Your task to perform on an android device: Open settings on Google Maps Image 0: 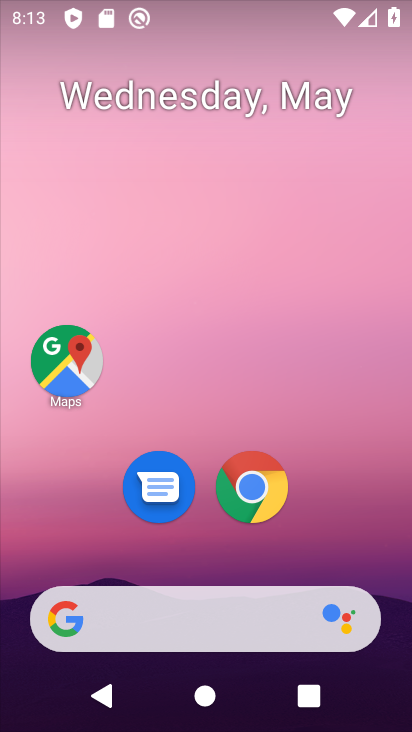
Step 0: click (67, 366)
Your task to perform on an android device: Open settings on Google Maps Image 1: 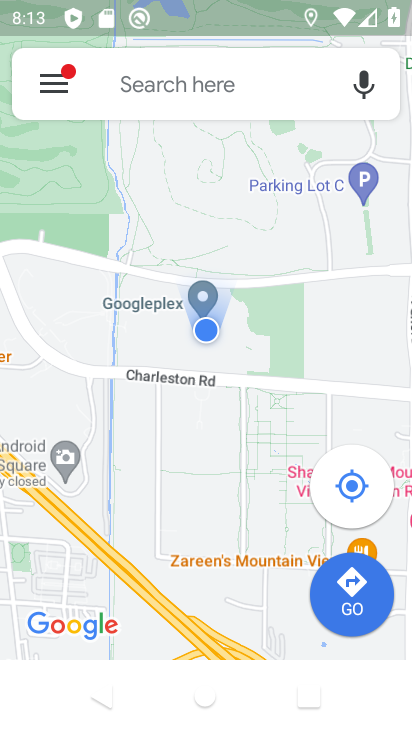
Step 1: click (48, 72)
Your task to perform on an android device: Open settings on Google Maps Image 2: 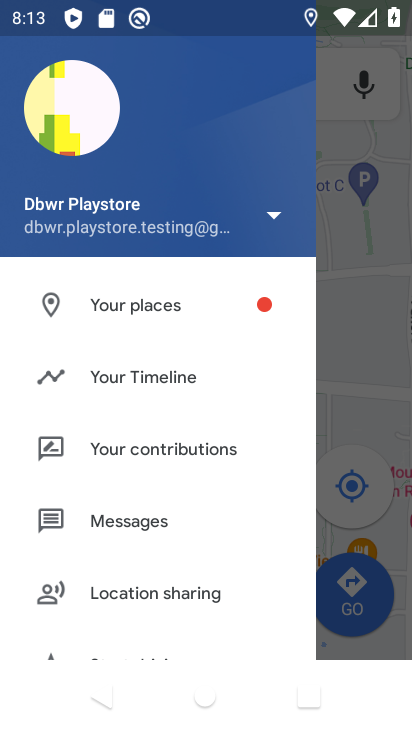
Step 2: drag from (215, 527) to (159, 242)
Your task to perform on an android device: Open settings on Google Maps Image 3: 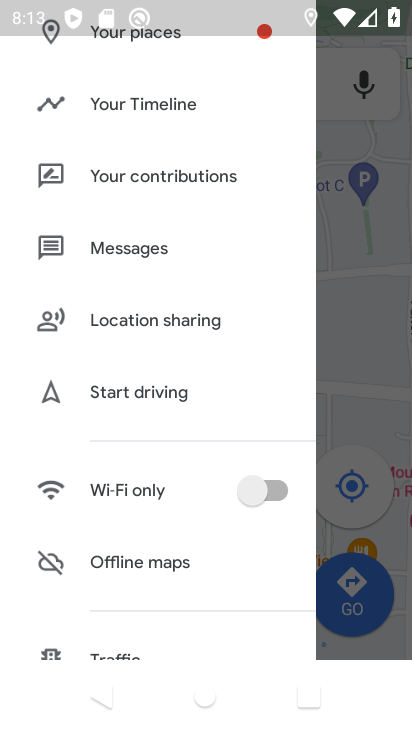
Step 3: drag from (165, 600) to (142, 235)
Your task to perform on an android device: Open settings on Google Maps Image 4: 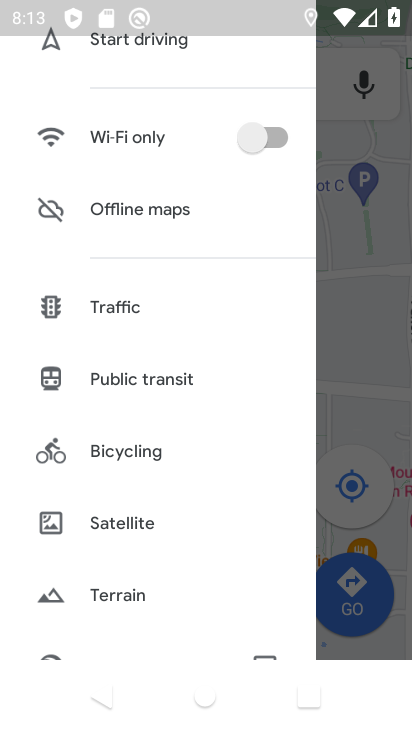
Step 4: drag from (171, 553) to (172, 100)
Your task to perform on an android device: Open settings on Google Maps Image 5: 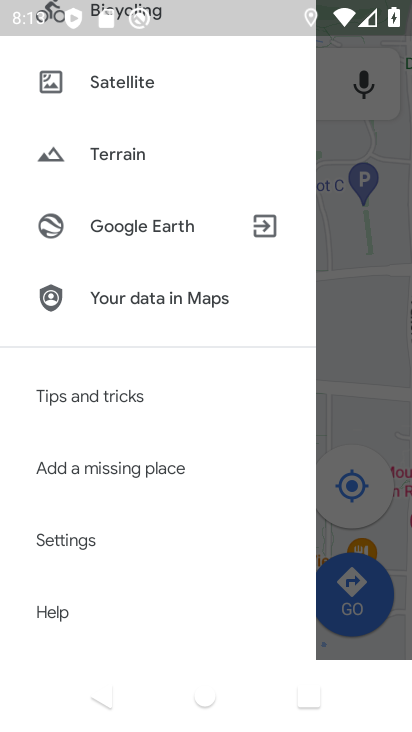
Step 5: click (72, 533)
Your task to perform on an android device: Open settings on Google Maps Image 6: 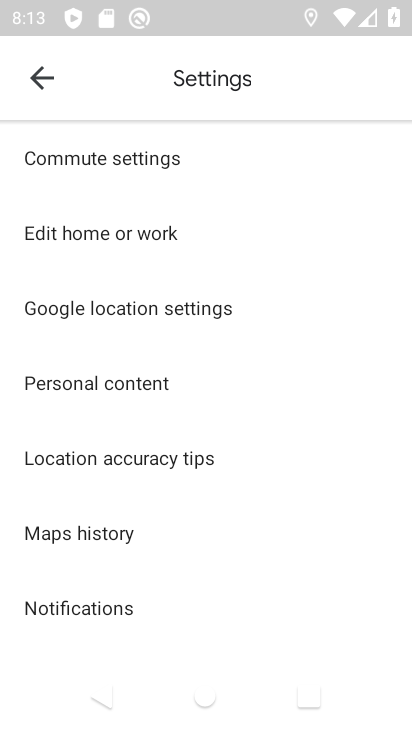
Step 6: task complete